Your task to perform on an android device: turn on airplane mode Image 0: 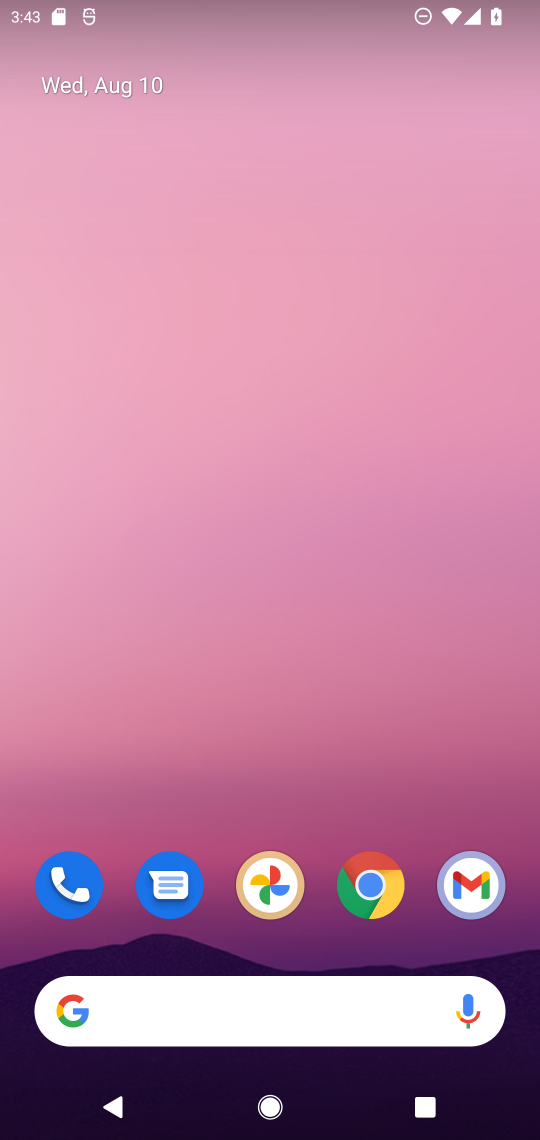
Step 0: drag from (318, 950) to (229, 180)
Your task to perform on an android device: turn on airplane mode Image 1: 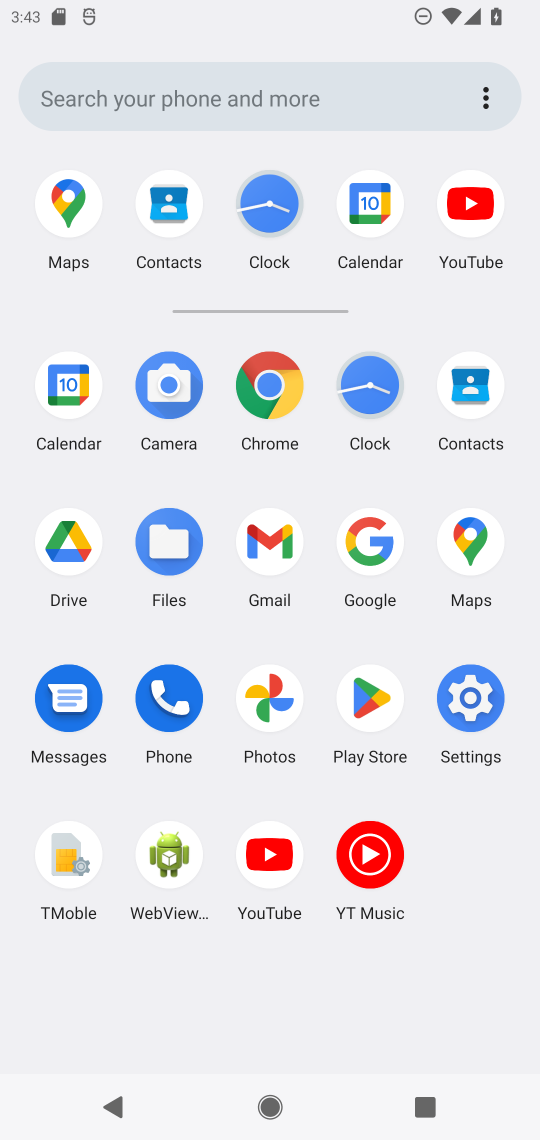
Step 1: click (472, 697)
Your task to perform on an android device: turn on airplane mode Image 2: 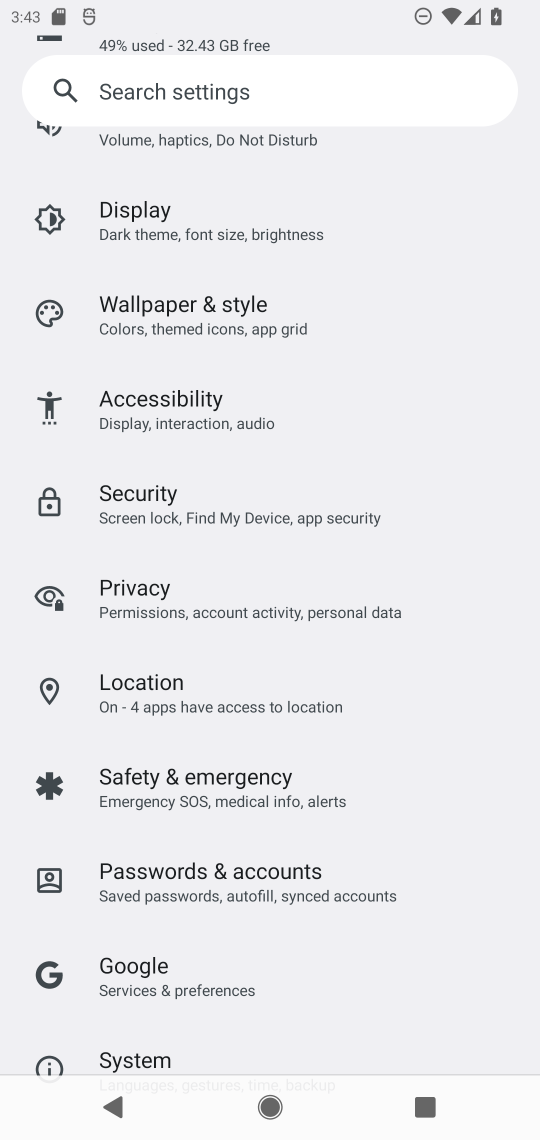
Step 2: drag from (296, 290) to (503, 976)
Your task to perform on an android device: turn on airplane mode Image 3: 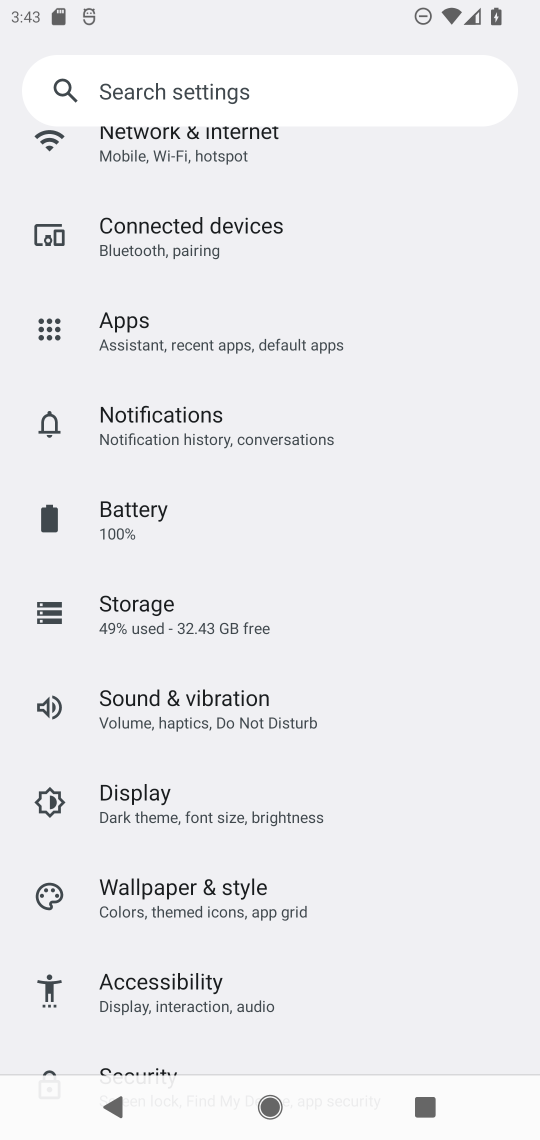
Step 3: drag from (293, 271) to (481, 1105)
Your task to perform on an android device: turn on airplane mode Image 4: 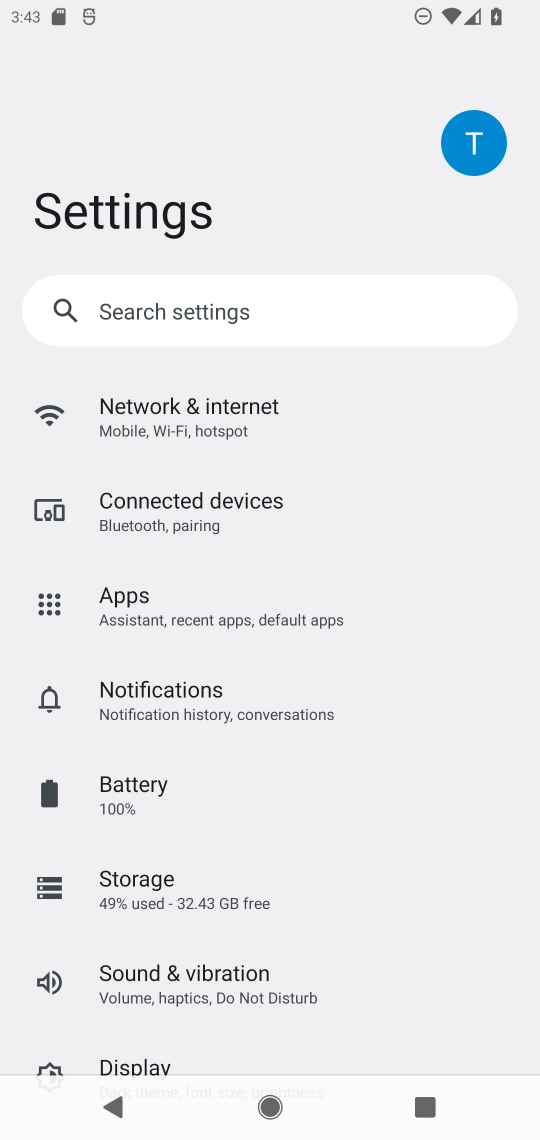
Step 4: click (196, 400)
Your task to perform on an android device: turn on airplane mode Image 5: 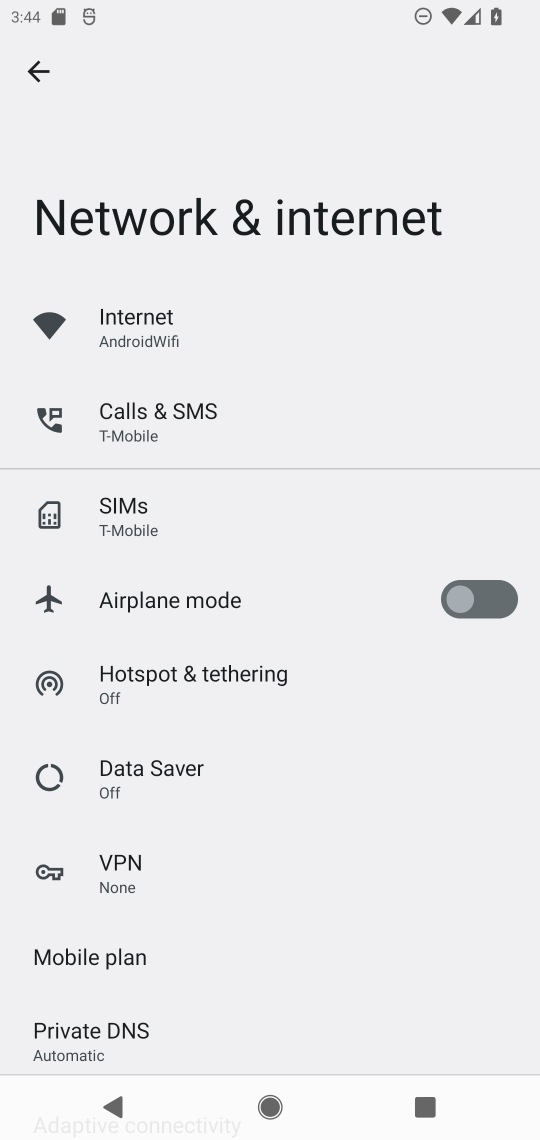
Step 5: click (457, 605)
Your task to perform on an android device: turn on airplane mode Image 6: 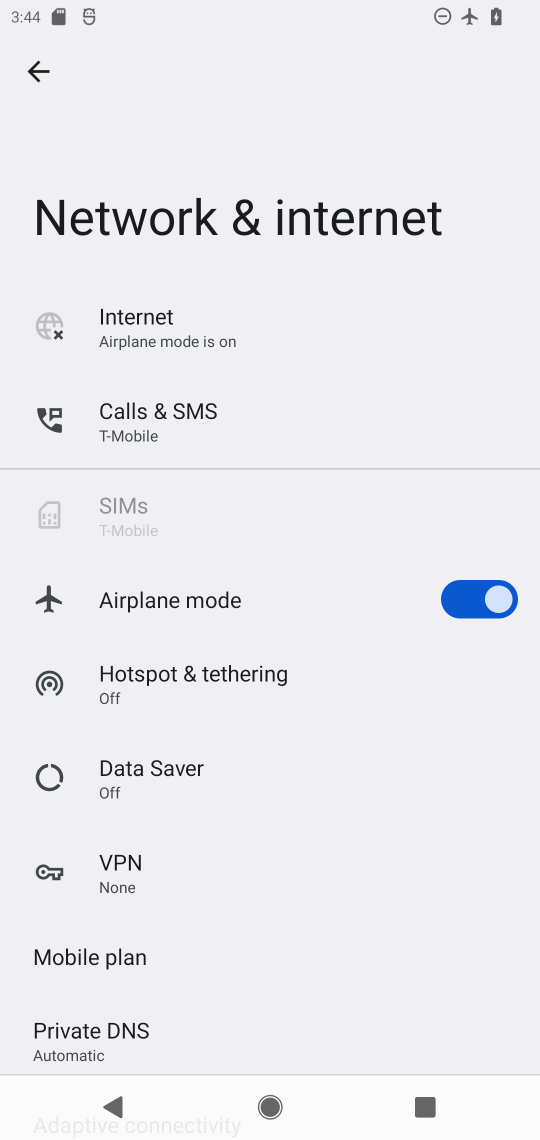
Step 6: task complete